Your task to perform on an android device: Go to CNN.com Image 0: 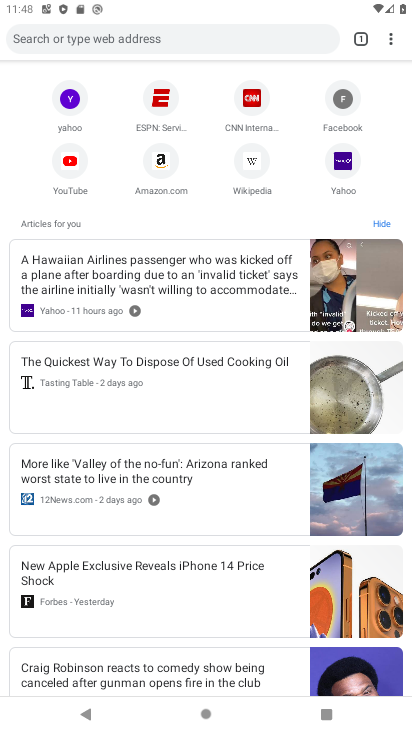
Step 0: click (131, 43)
Your task to perform on an android device: Go to CNN.com Image 1: 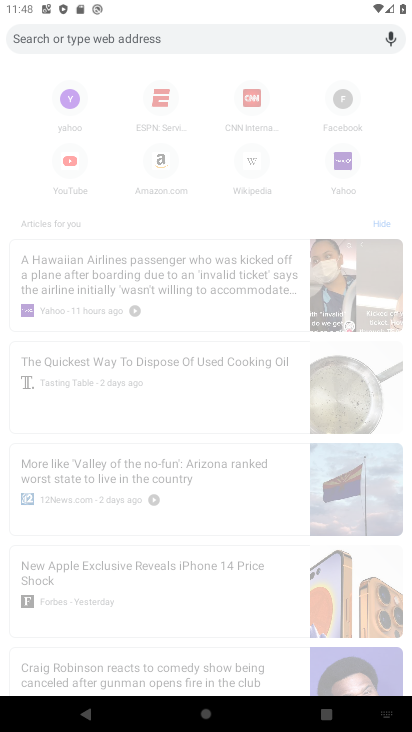
Step 1: press home button
Your task to perform on an android device: Go to CNN.com Image 2: 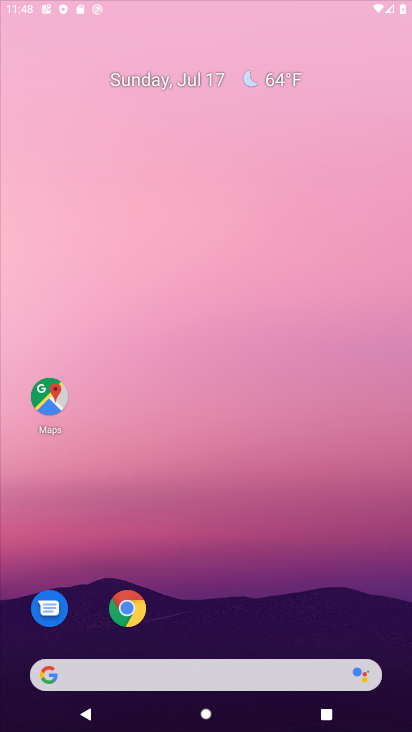
Step 2: drag from (260, 616) to (143, 26)
Your task to perform on an android device: Go to CNN.com Image 3: 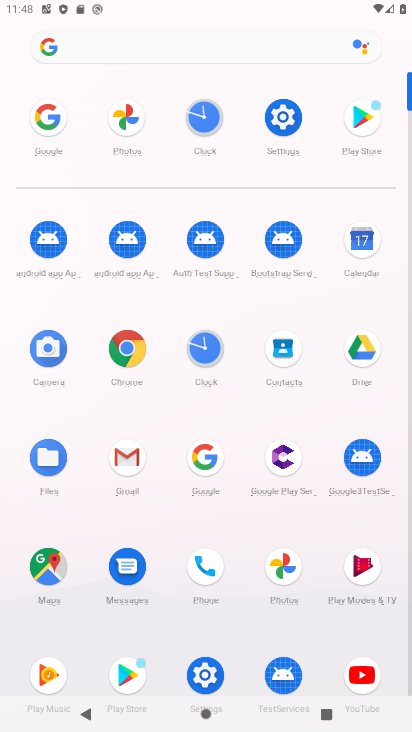
Step 3: click (206, 452)
Your task to perform on an android device: Go to CNN.com Image 4: 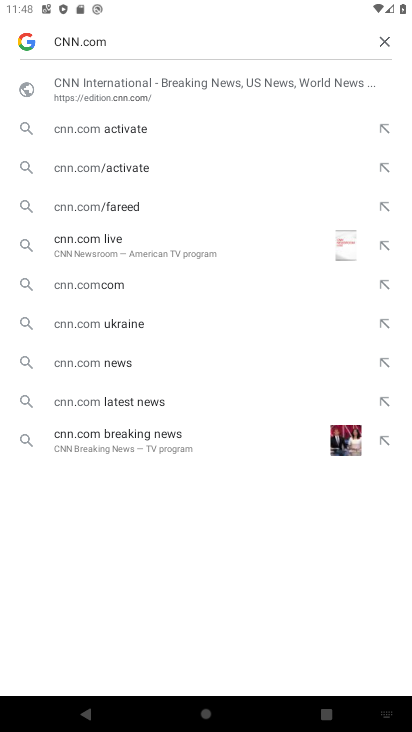
Step 4: click (122, 86)
Your task to perform on an android device: Go to CNN.com Image 5: 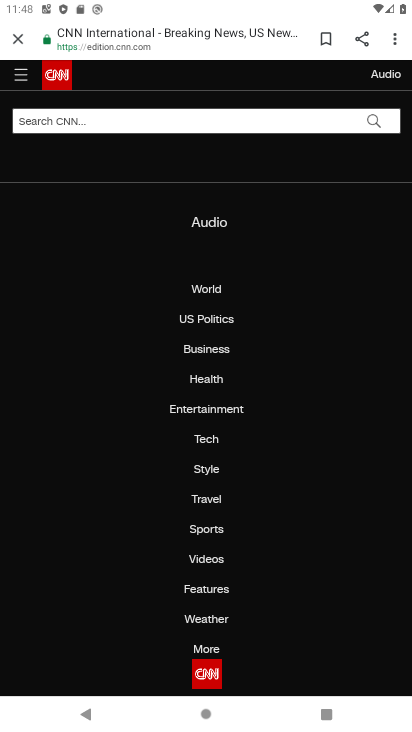
Step 5: task complete